Your task to perform on an android device: set the stopwatch Image 0: 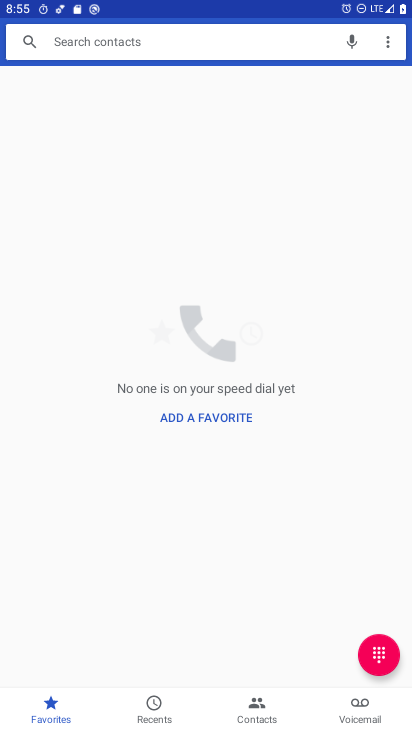
Step 0: drag from (194, 668) to (184, 336)
Your task to perform on an android device: set the stopwatch Image 1: 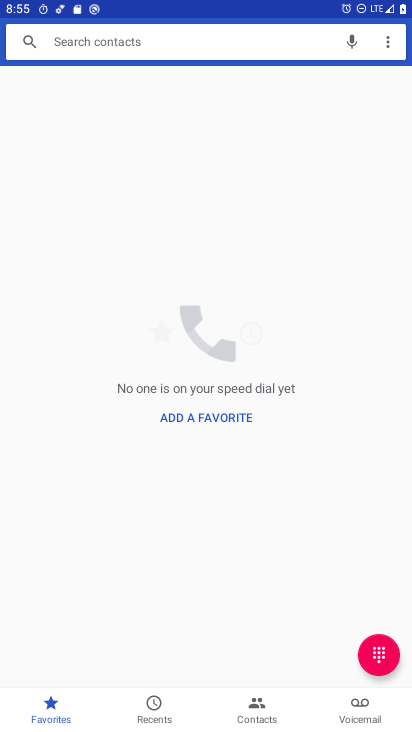
Step 1: press home button
Your task to perform on an android device: set the stopwatch Image 2: 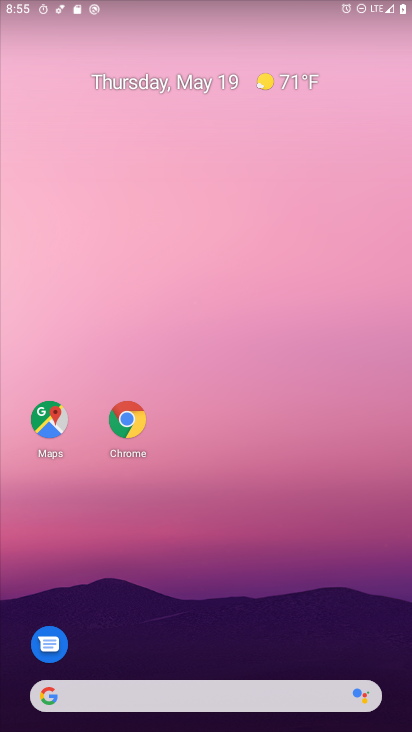
Step 2: drag from (167, 638) to (193, 256)
Your task to perform on an android device: set the stopwatch Image 3: 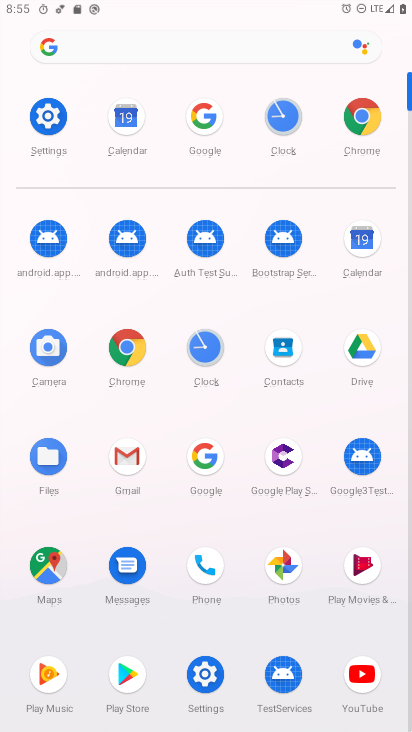
Step 3: click (282, 113)
Your task to perform on an android device: set the stopwatch Image 4: 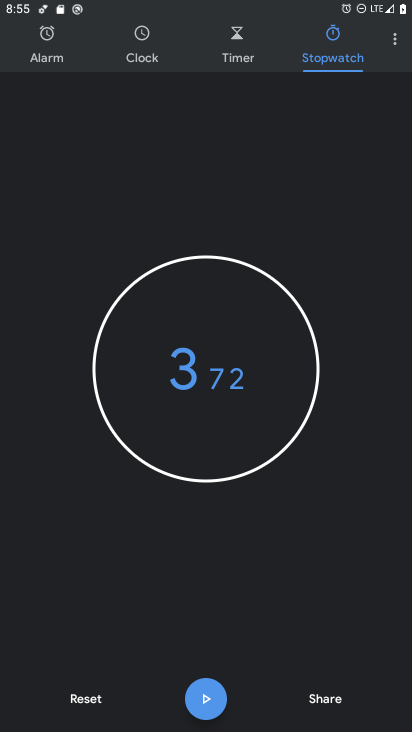
Step 4: click (90, 705)
Your task to perform on an android device: set the stopwatch Image 5: 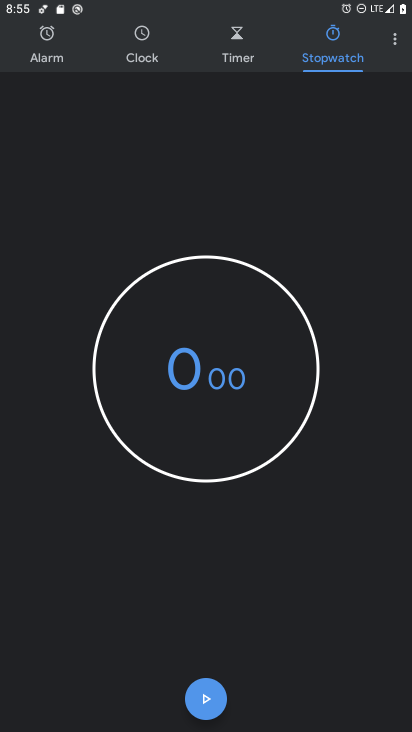
Step 5: click (209, 704)
Your task to perform on an android device: set the stopwatch Image 6: 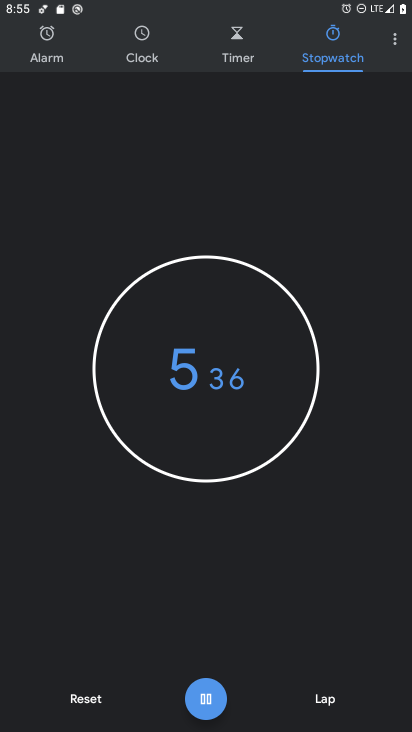
Step 6: click (208, 704)
Your task to perform on an android device: set the stopwatch Image 7: 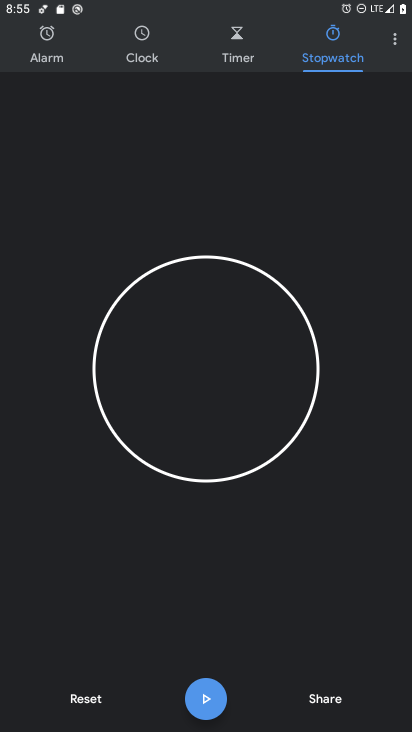
Step 7: task complete